Your task to perform on an android device: turn on wifi Image 0: 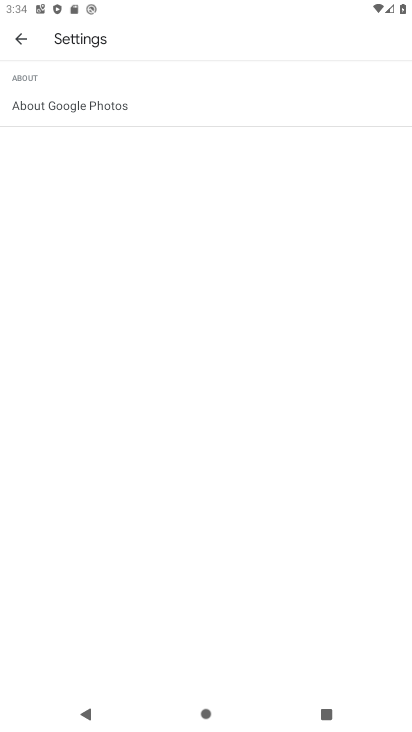
Step 0: press home button
Your task to perform on an android device: turn on wifi Image 1: 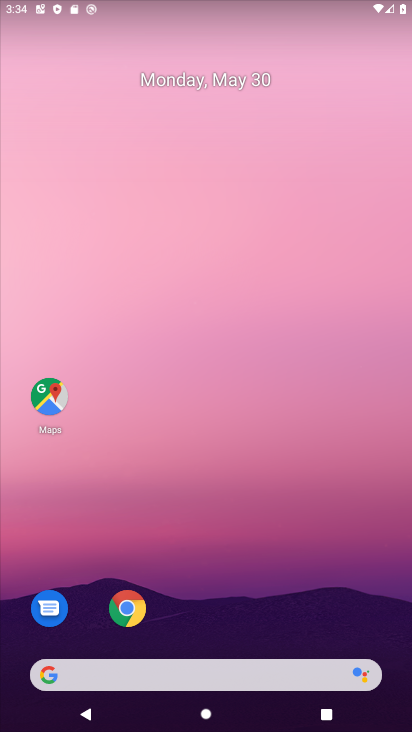
Step 1: drag from (243, 587) to (222, 229)
Your task to perform on an android device: turn on wifi Image 2: 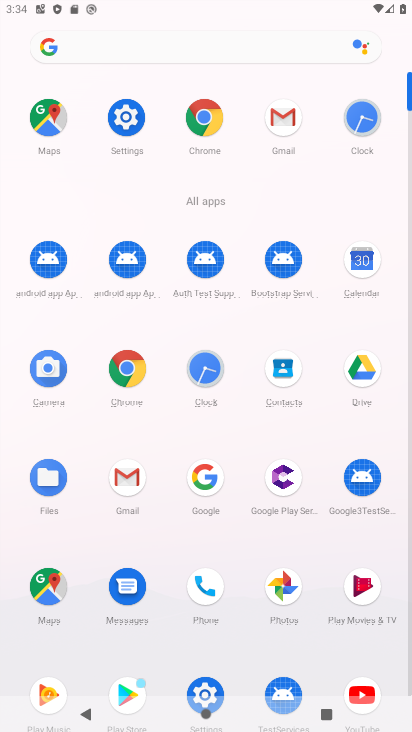
Step 2: click (126, 121)
Your task to perform on an android device: turn on wifi Image 3: 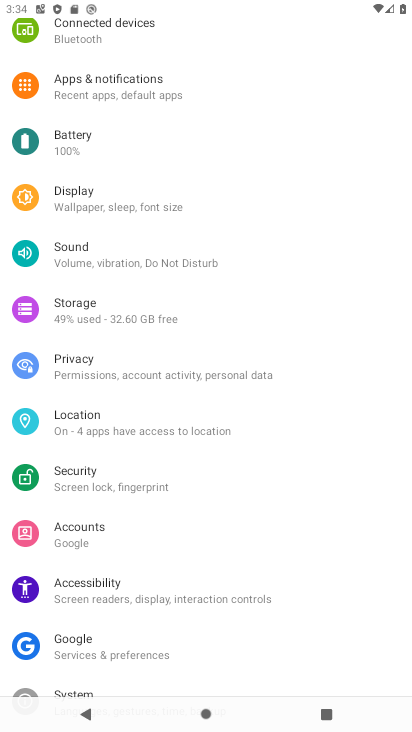
Step 3: drag from (136, 96) to (148, 548)
Your task to perform on an android device: turn on wifi Image 4: 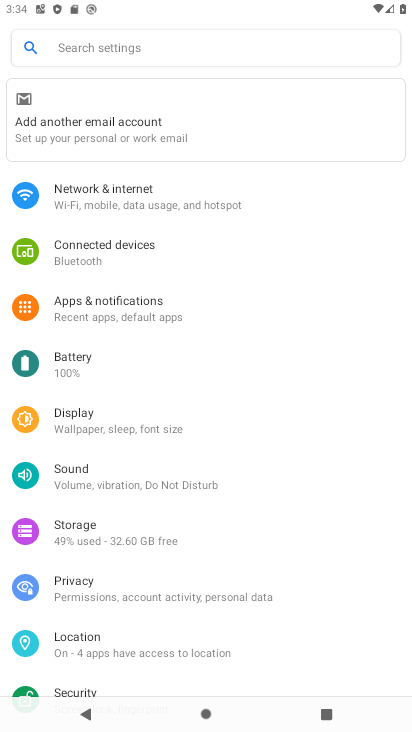
Step 4: click (116, 195)
Your task to perform on an android device: turn on wifi Image 5: 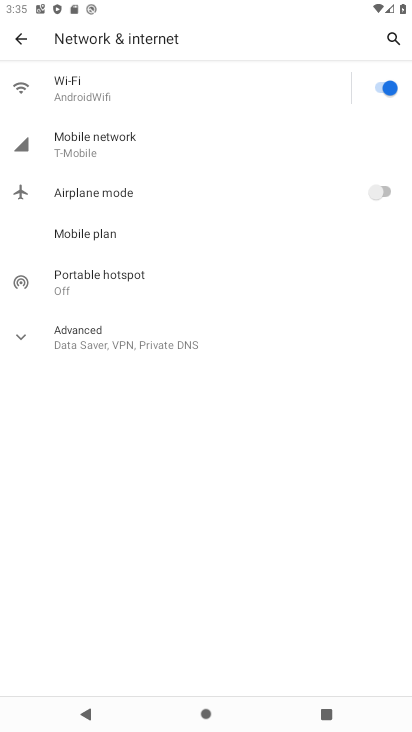
Step 5: task complete